Your task to perform on an android device: find snoozed emails in the gmail app Image 0: 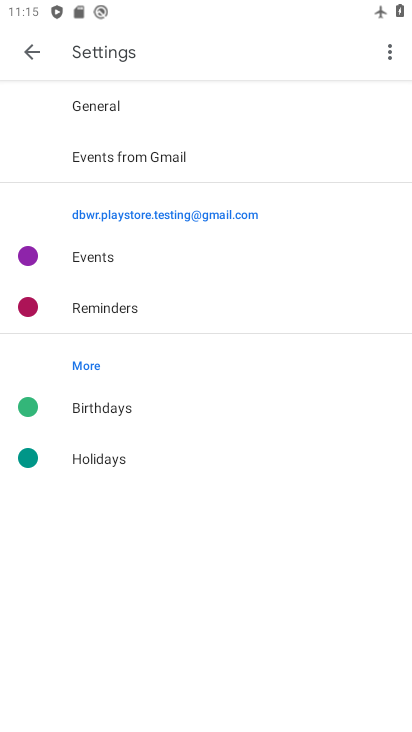
Step 0: press home button
Your task to perform on an android device: find snoozed emails in the gmail app Image 1: 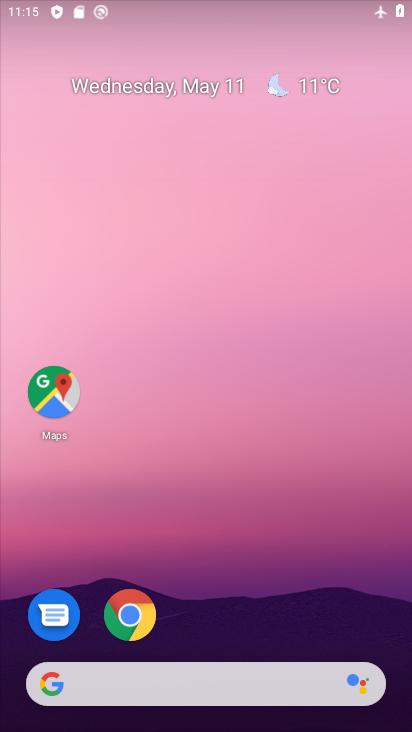
Step 1: drag from (278, 571) to (299, 24)
Your task to perform on an android device: find snoozed emails in the gmail app Image 2: 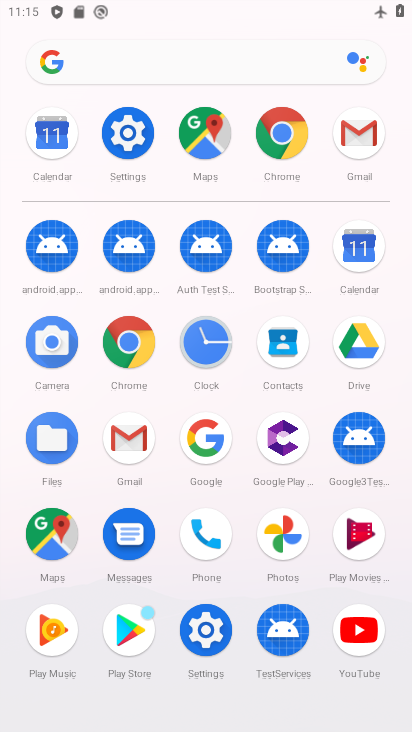
Step 2: click (344, 136)
Your task to perform on an android device: find snoozed emails in the gmail app Image 3: 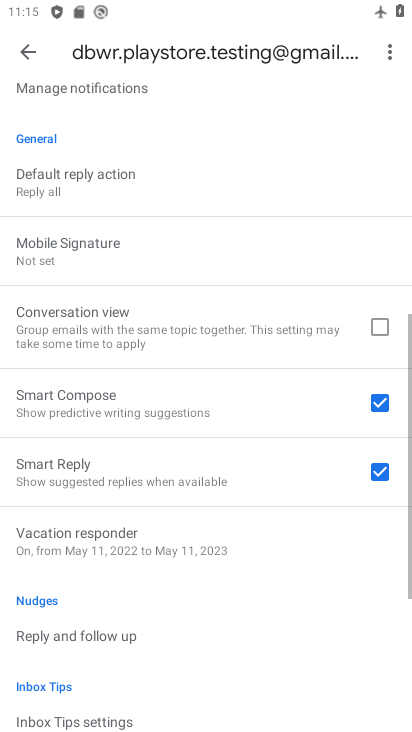
Step 3: click (24, 57)
Your task to perform on an android device: find snoozed emails in the gmail app Image 4: 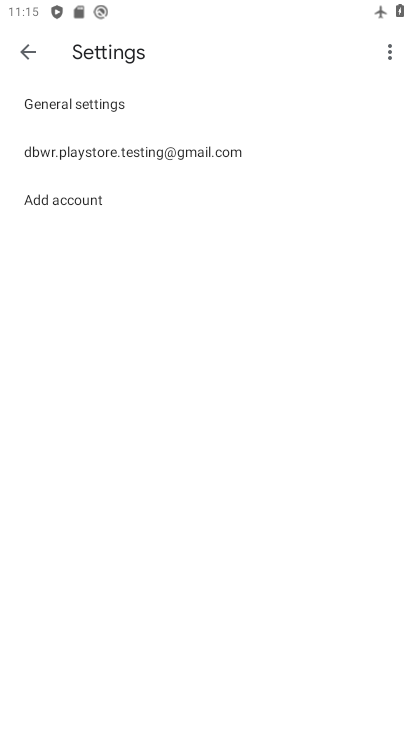
Step 4: click (24, 57)
Your task to perform on an android device: find snoozed emails in the gmail app Image 5: 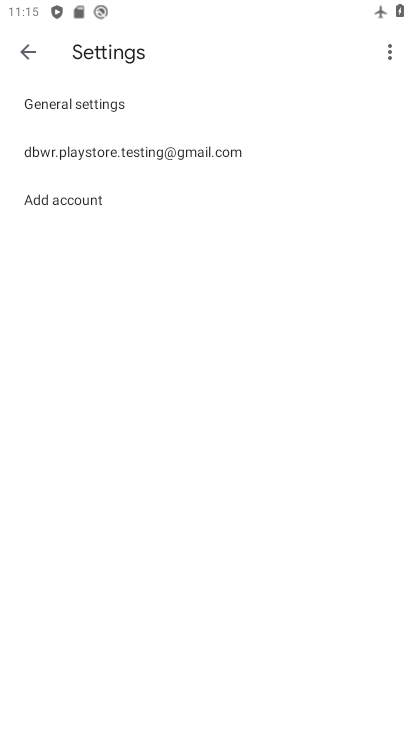
Step 5: click (24, 57)
Your task to perform on an android device: find snoozed emails in the gmail app Image 6: 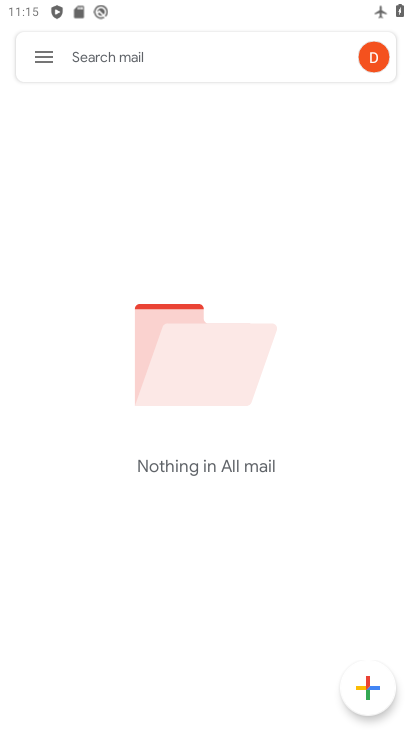
Step 6: click (31, 57)
Your task to perform on an android device: find snoozed emails in the gmail app Image 7: 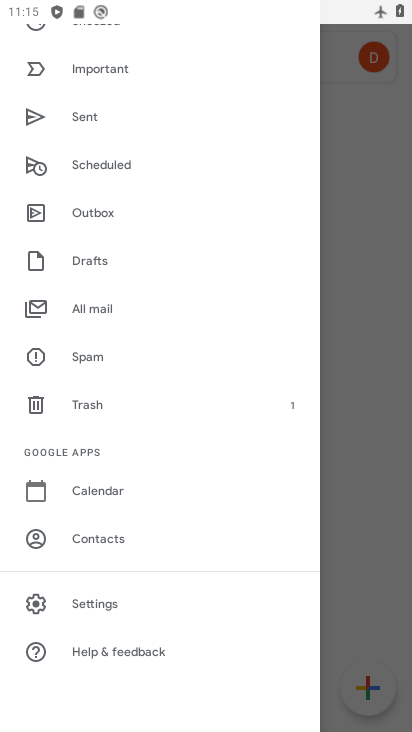
Step 7: drag from (121, 167) to (114, 576)
Your task to perform on an android device: find snoozed emails in the gmail app Image 8: 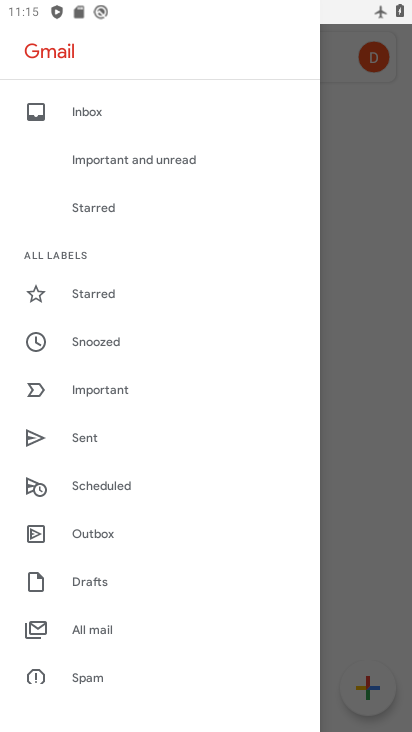
Step 8: click (94, 342)
Your task to perform on an android device: find snoozed emails in the gmail app Image 9: 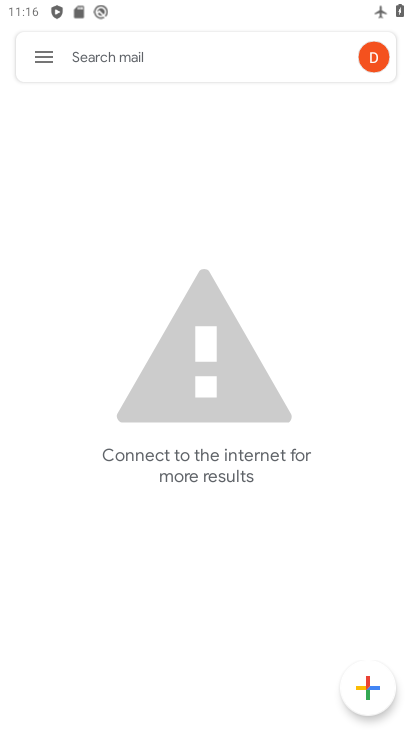
Step 9: task complete